Your task to perform on an android device: set the stopwatch Image 0: 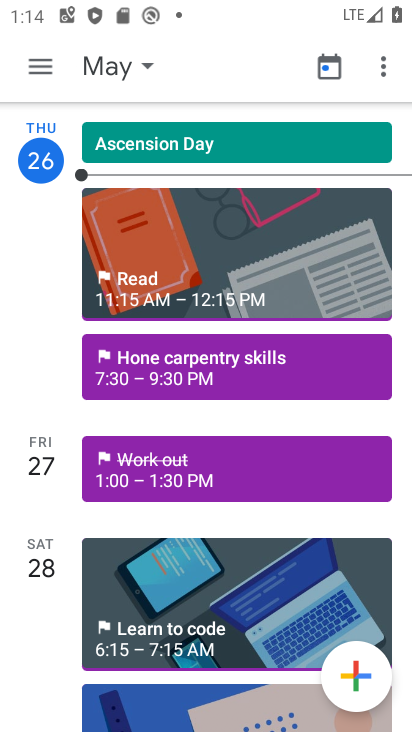
Step 0: press home button
Your task to perform on an android device: set the stopwatch Image 1: 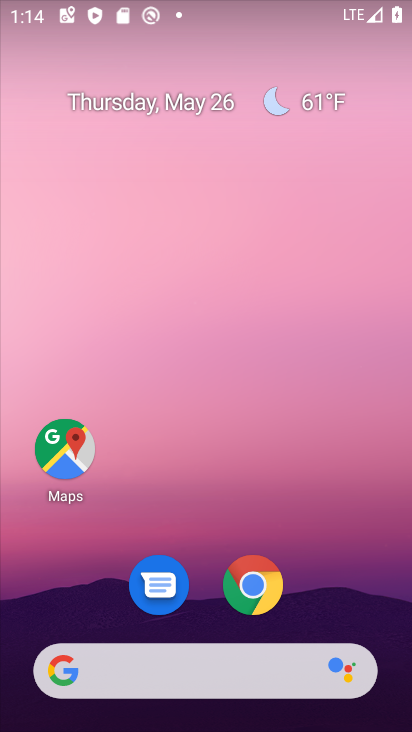
Step 1: drag from (239, 523) to (251, 46)
Your task to perform on an android device: set the stopwatch Image 2: 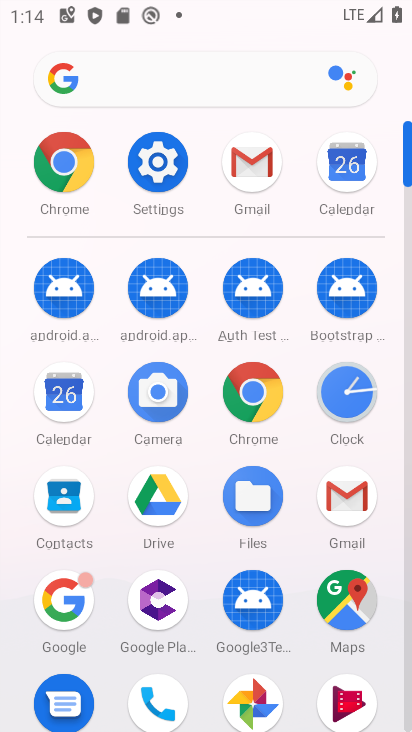
Step 2: click (352, 396)
Your task to perform on an android device: set the stopwatch Image 3: 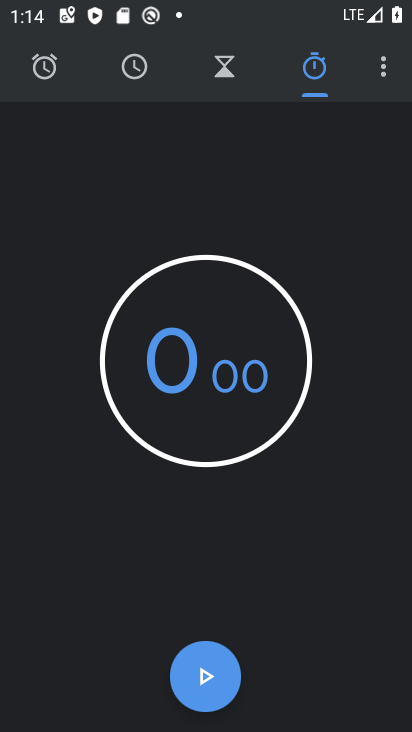
Step 3: click (320, 68)
Your task to perform on an android device: set the stopwatch Image 4: 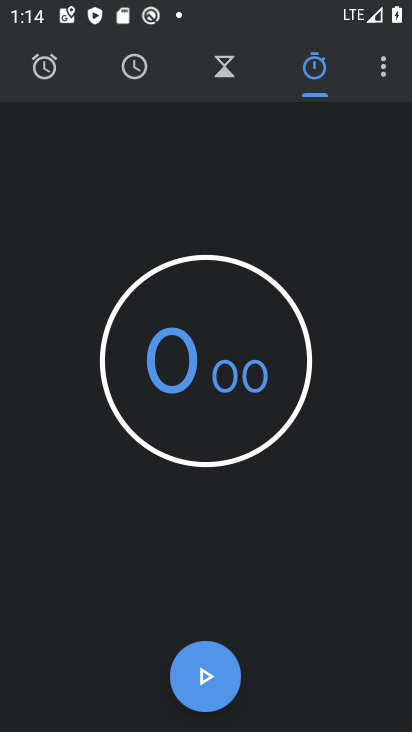
Step 4: click (209, 675)
Your task to perform on an android device: set the stopwatch Image 5: 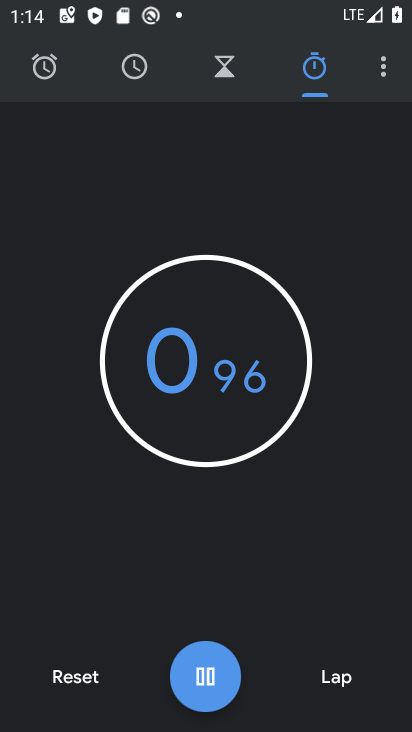
Step 5: click (209, 675)
Your task to perform on an android device: set the stopwatch Image 6: 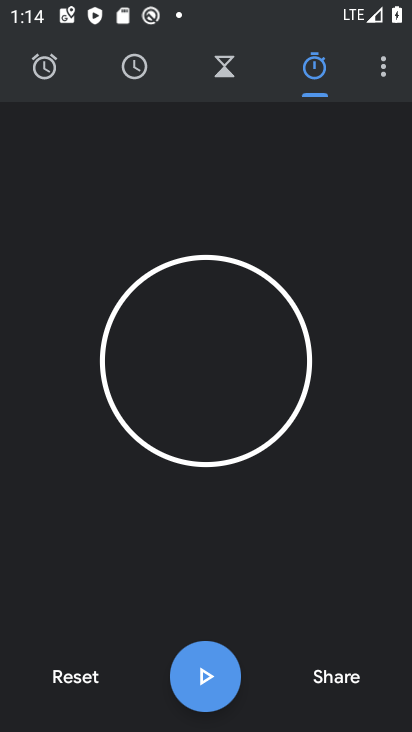
Step 6: task complete